Your task to perform on an android device: turn off javascript in the chrome app Image 0: 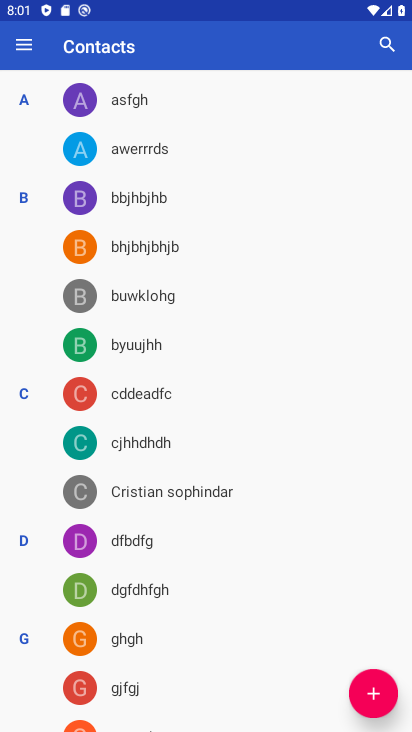
Step 0: press home button
Your task to perform on an android device: turn off javascript in the chrome app Image 1: 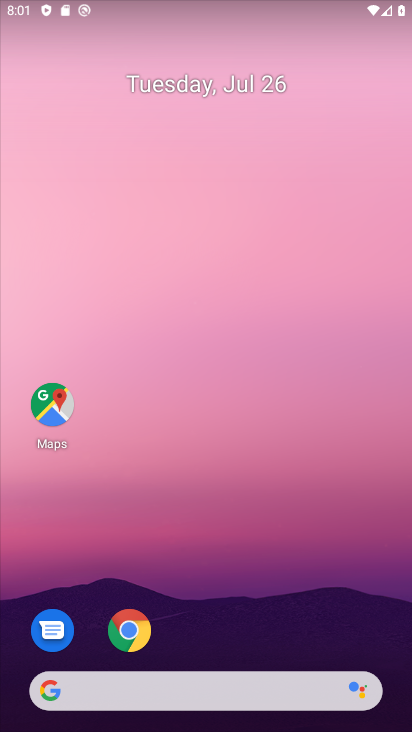
Step 1: drag from (276, 570) to (299, 125)
Your task to perform on an android device: turn off javascript in the chrome app Image 2: 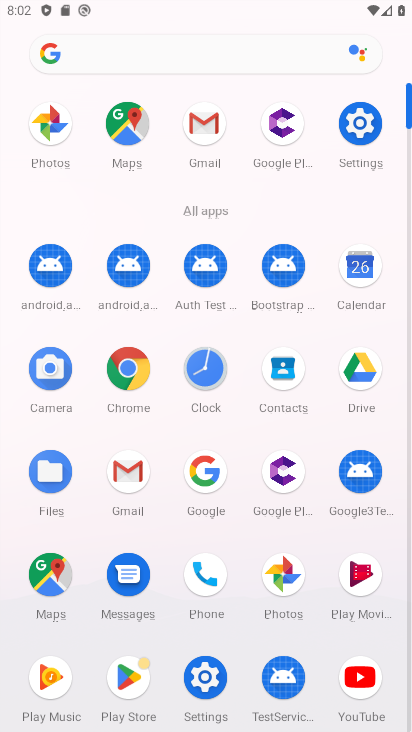
Step 2: click (130, 355)
Your task to perform on an android device: turn off javascript in the chrome app Image 3: 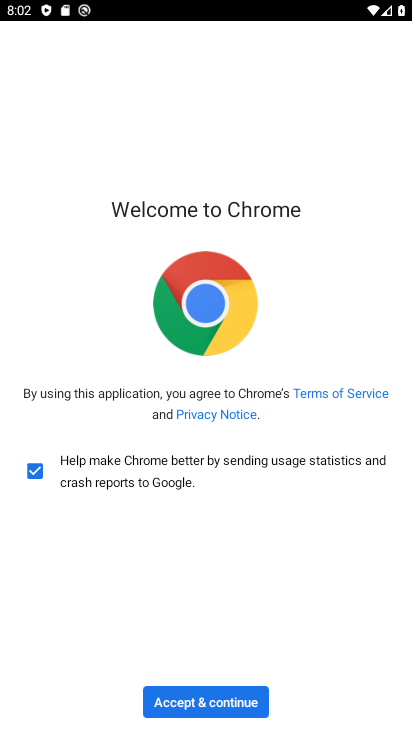
Step 3: click (226, 701)
Your task to perform on an android device: turn off javascript in the chrome app Image 4: 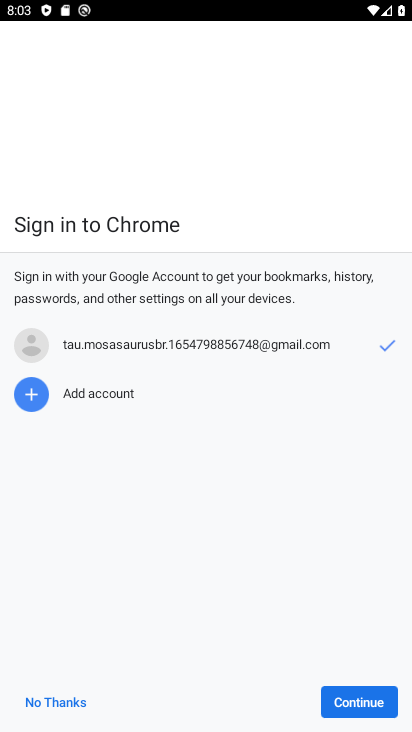
Step 4: click (45, 700)
Your task to perform on an android device: turn off javascript in the chrome app Image 5: 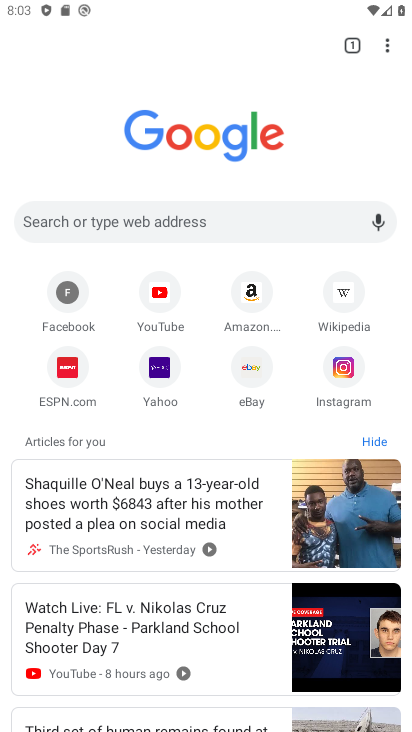
Step 5: drag from (384, 43) to (221, 395)
Your task to perform on an android device: turn off javascript in the chrome app Image 6: 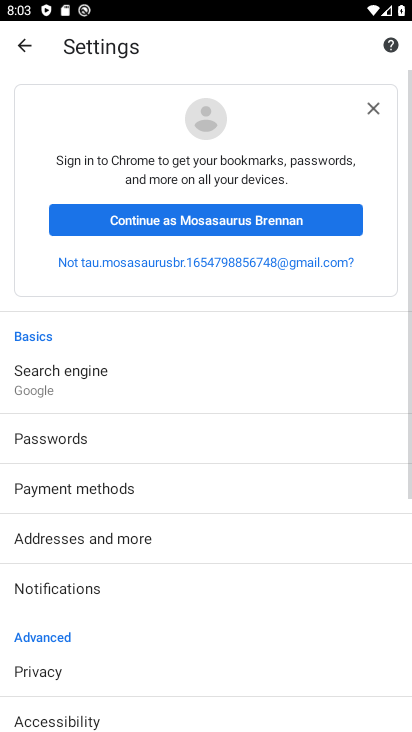
Step 6: drag from (186, 513) to (189, 167)
Your task to perform on an android device: turn off javascript in the chrome app Image 7: 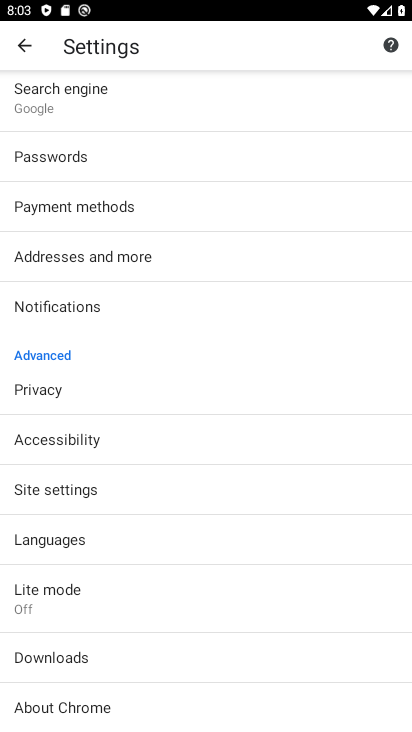
Step 7: click (93, 491)
Your task to perform on an android device: turn off javascript in the chrome app Image 8: 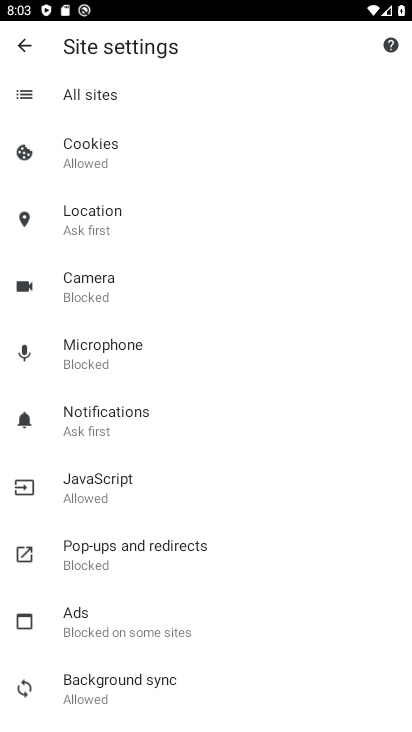
Step 8: click (89, 492)
Your task to perform on an android device: turn off javascript in the chrome app Image 9: 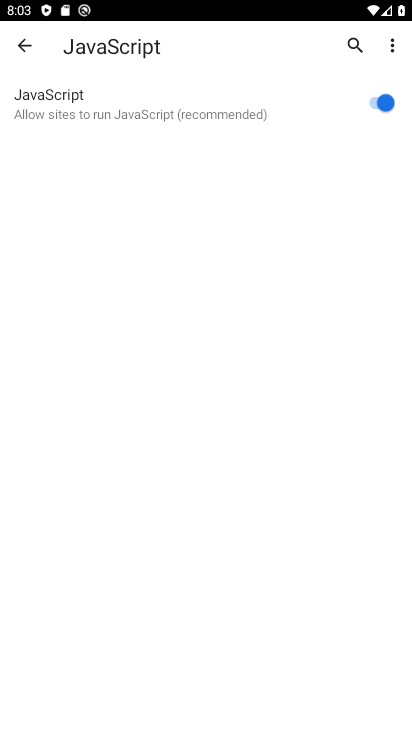
Step 9: click (386, 105)
Your task to perform on an android device: turn off javascript in the chrome app Image 10: 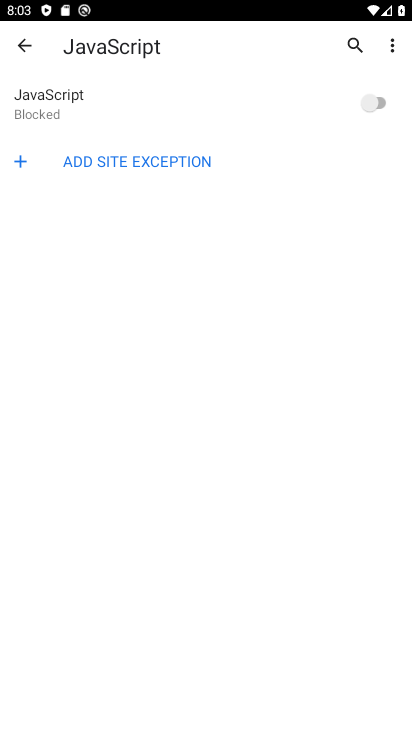
Step 10: task complete